Your task to perform on an android device: Open maps Image 0: 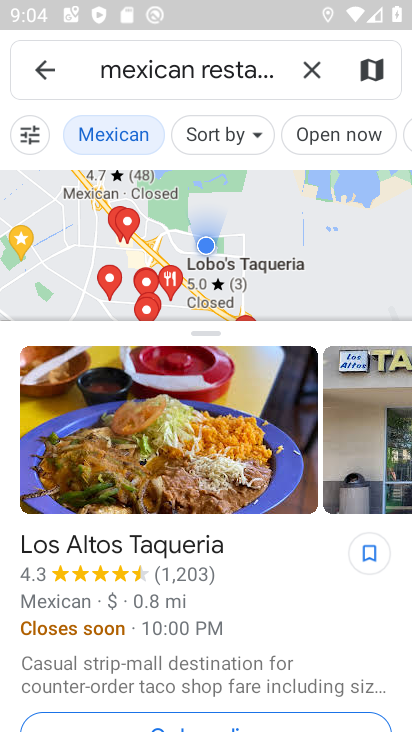
Step 0: click (48, 71)
Your task to perform on an android device: Open maps Image 1: 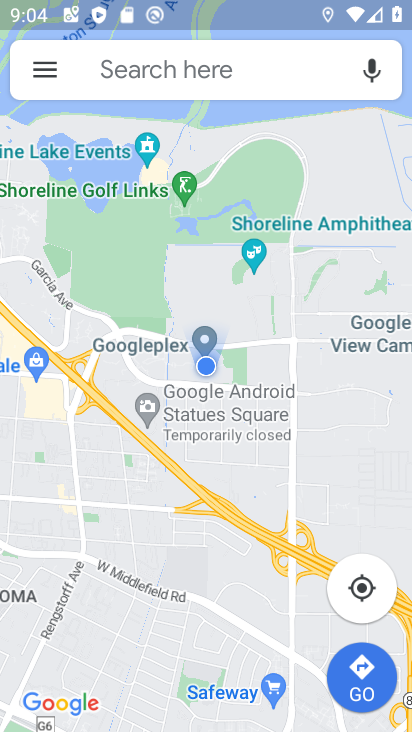
Step 1: task complete